Your task to perform on an android device: check google app version Image 0: 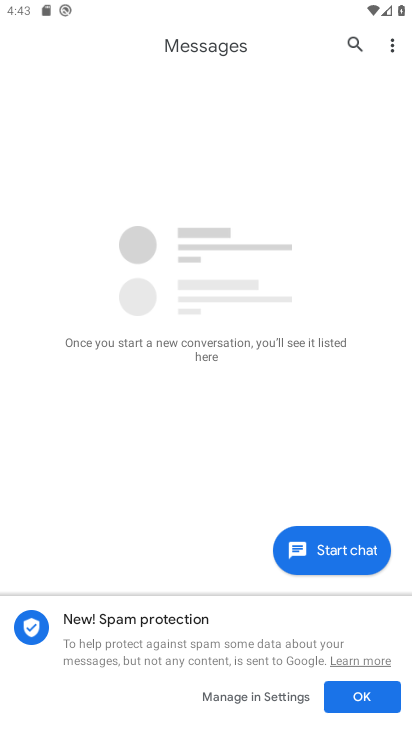
Step 0: press home button
Your task to perform on an android device: check google app version Image 1: 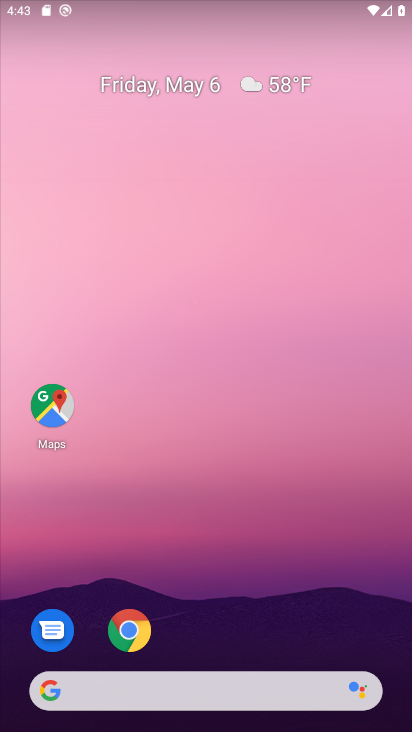
Step 1: drag from (262, 651) to (318, 82)
Your task to perform on an android device: check google app version Image 2: 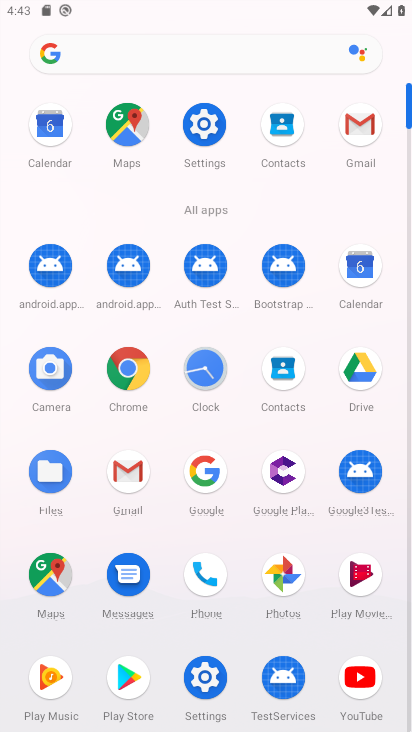
Step 2: click (203, 684)
Your task to perform on an android device: check google app version Image 3: 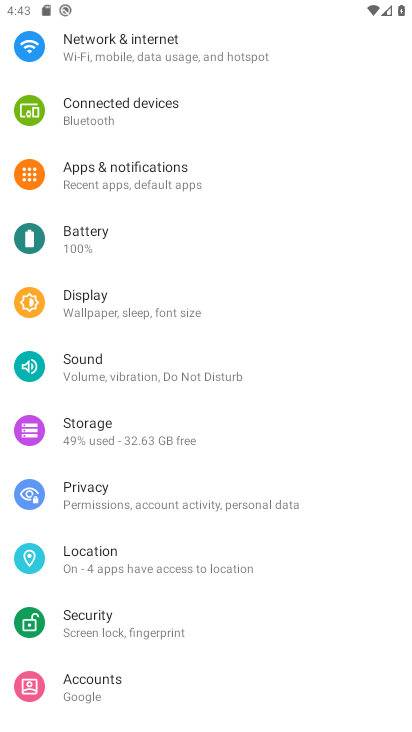
Step 3: drag from (201, 681) to (224, 560)
Your task to perform on an android device: check google app version Image 4: 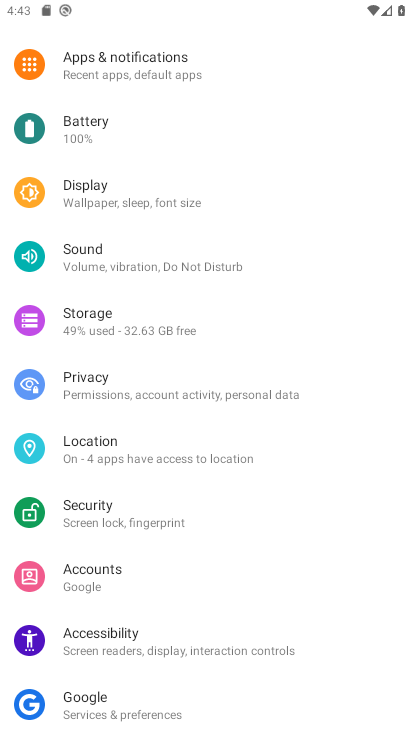
Step 4: drag from (212, 661) to (232, 517)
Your task to perform on an android device: check google app version Image 5: 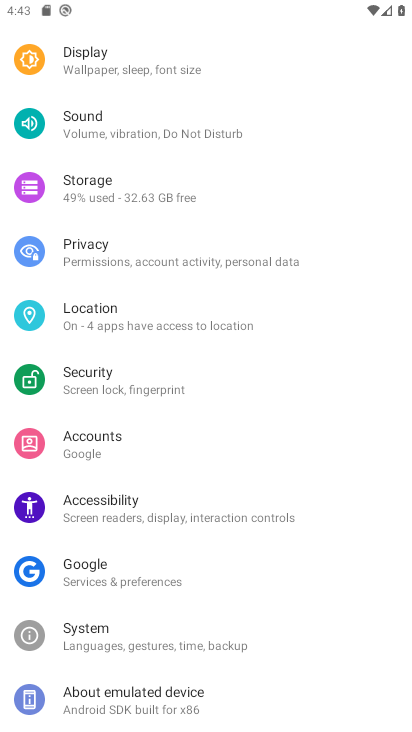
Step 5: click (230, 702)
Your task to perform on an android device: check google app version Image 6: 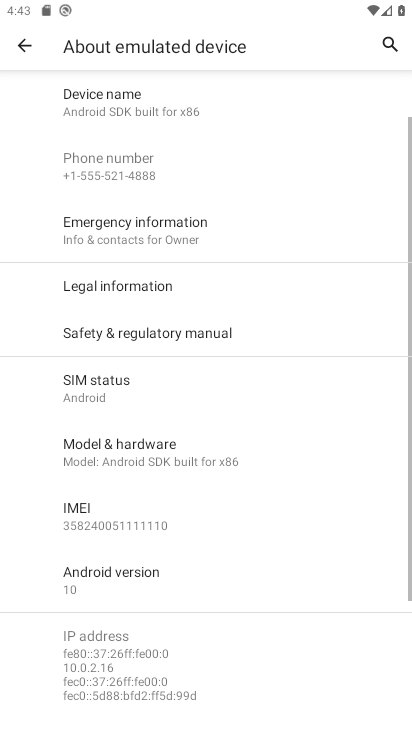
Step 6: click (144, 572)
Your task to perform on an android device: check google app version Image 7: 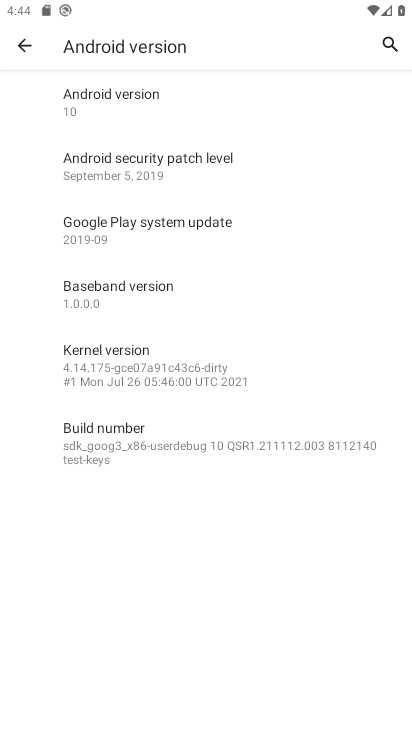
Step 7: click (170, 103)
Your task to perform on an android device: check google app version Image 8: 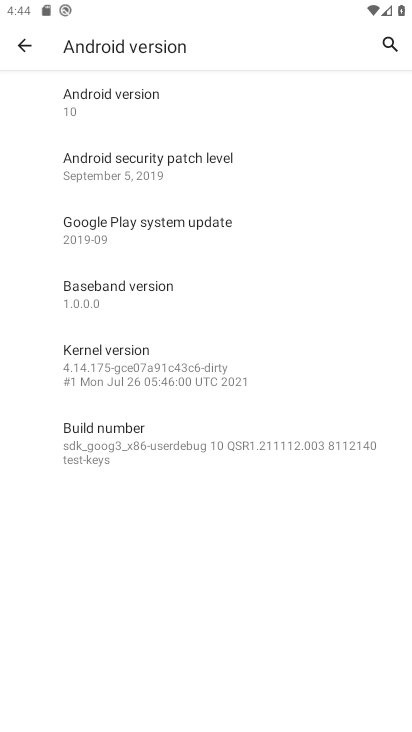
Step 8: task complete